Your task to perform on an android device: turn on showing notifications on the lock screen Image 0: 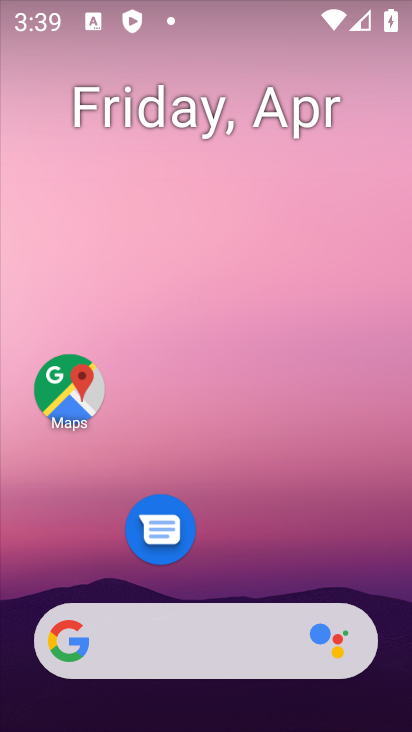
Step 0: drag from (322, 271) to (335, 206)
Your task to perform on an android device: turn on showing notifications on the lock screen Image 1: 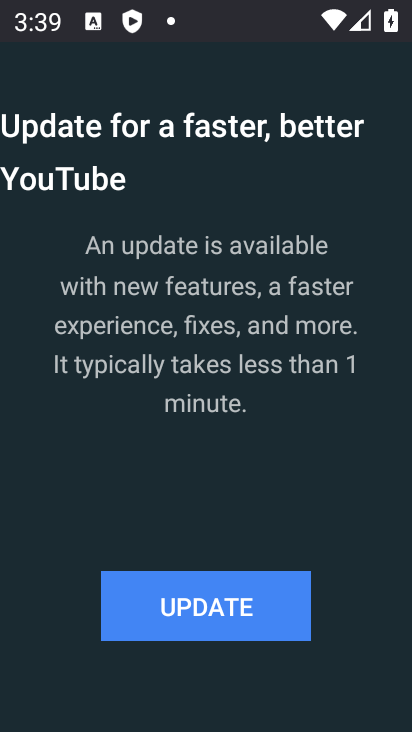
Step 1: press home button
Your task to perform on an android device: turn on showing notifications on the lock screen Image 2: 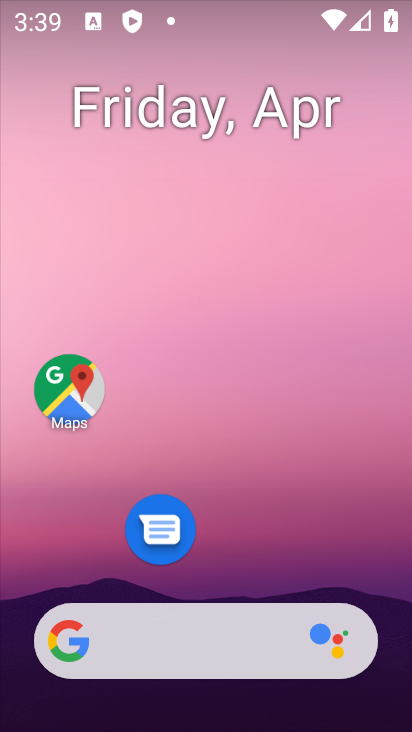
Step 2: drag from (325, 578) to (340, 82)
Your task to perform on an android device: turn on showing notifications on the lock screen Image 3: 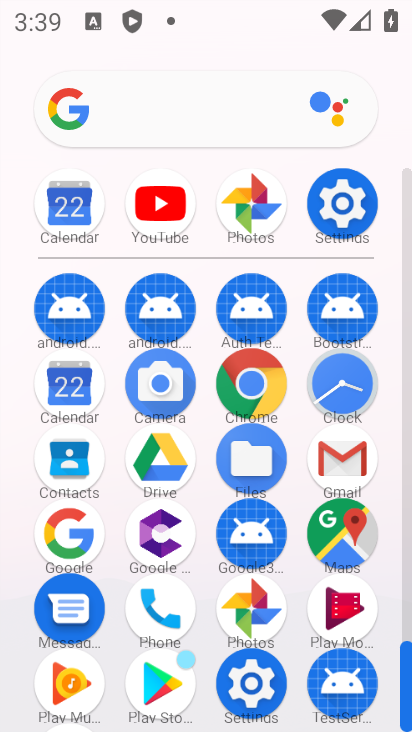
Step 3: click (355, 189)
Your task to perform on an android device: turn on showing notifications on the lock screen Image 4: 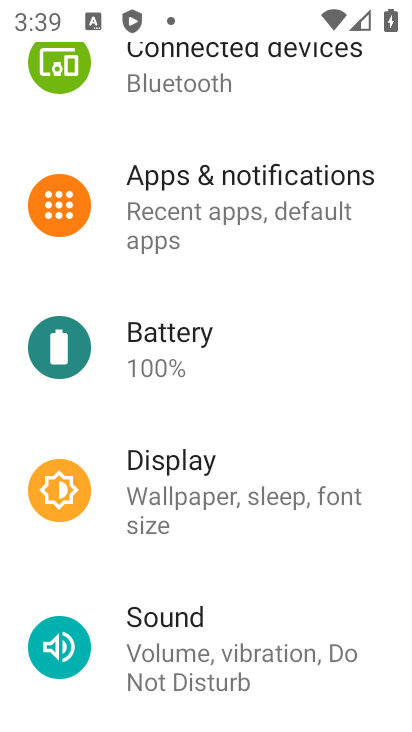
Step 4: click (355, 189)
Your task to perform on an android device: turn on showing notifications on the lock screen Image 5: 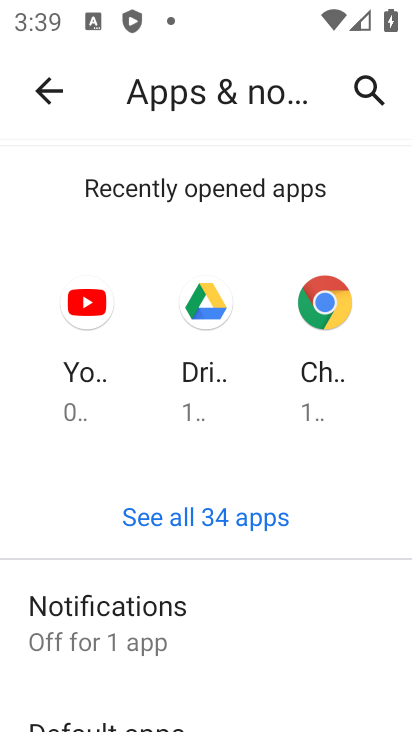
Step 5: click (166, 596)
Your task to perform on an android device: turn on showing notifications on the lock screen Image 6: 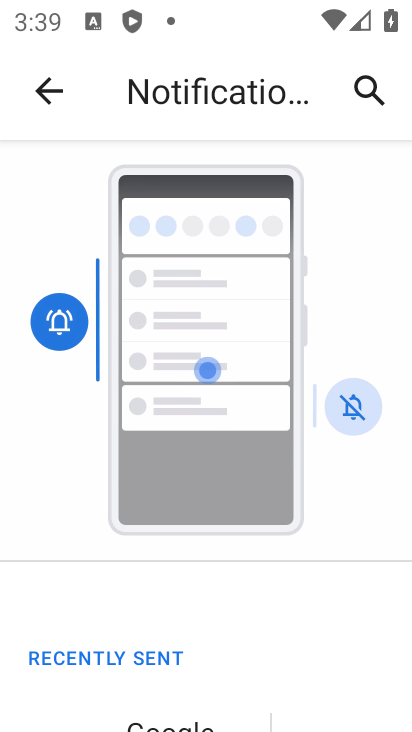
Step 6: drag from (175, 540) to (170, 124)
Your task to perform on an android device: turn on showing notifications on the lock screen Image 7: 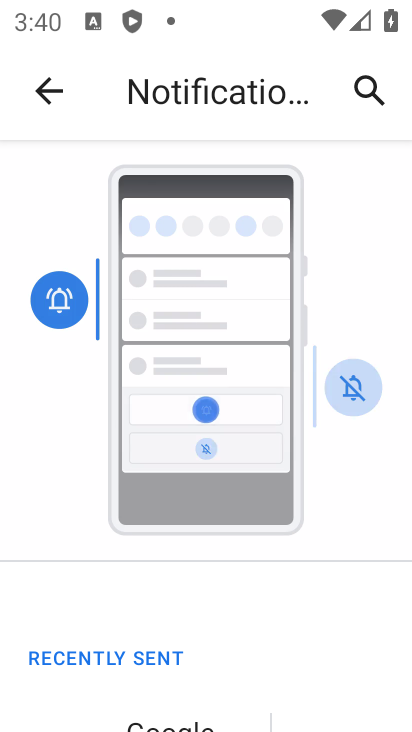
Step 7: drag from (169, 549) to (206, 261)
Your task to perform on an android device: turn on showing notifications on the lock screen Image 8: 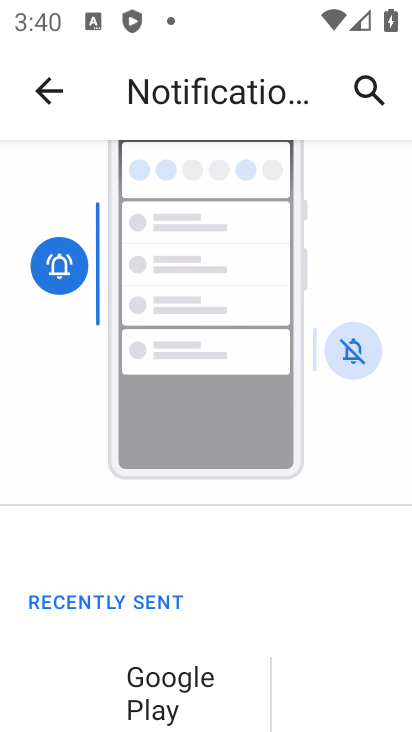
Step 8: drag from (194, 498) to (252, 193)
Your task to perform on an android device: turn on showing notifications on the lock screen Image 9: 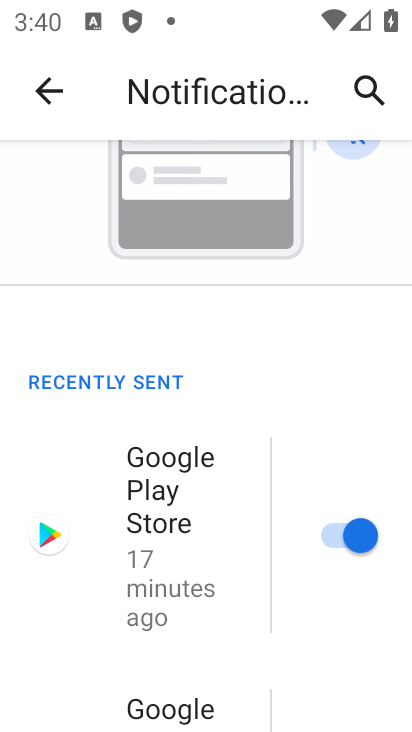
Step 9: drag from (217, 625) to (266, 84)
Your task to perform on an android device: turn on showing notifications on the lock screen Image 10: 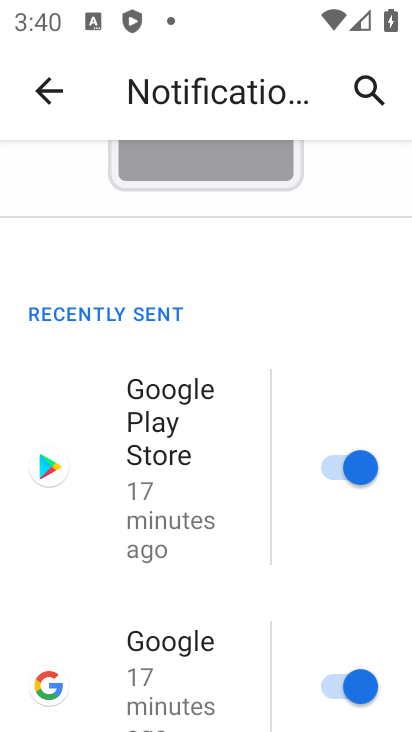
Step 10: drag from (102, 534) to (183, 80)
Your task to perform on an android device: turn on showing notifications on the lock screen Image 11: 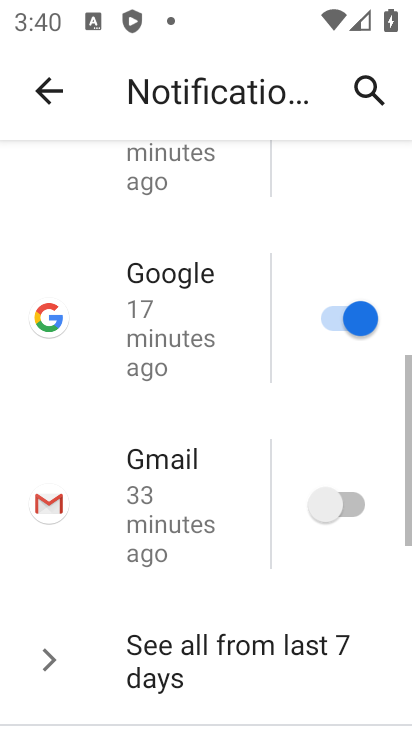
Step 11: drag from (173, 444) to (199, 71)
Your task to perform on an android device: turn on showing notifications on the lock screen Image 12: 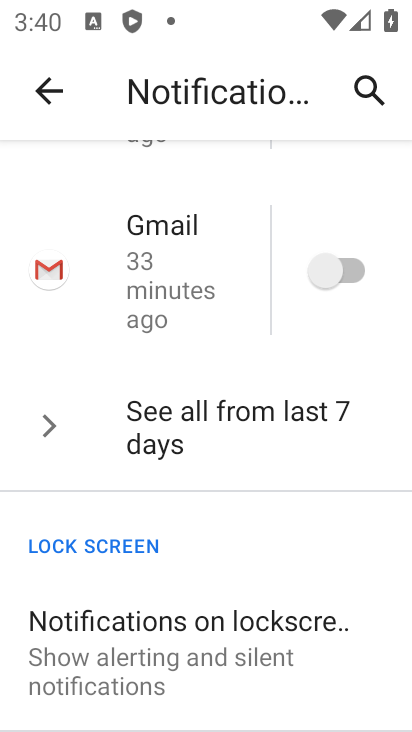
Step 12: drag from (160, 610) to (182, 214)
Your task to perform on an android device: turn on showing notifications on the lock screen Image 13: 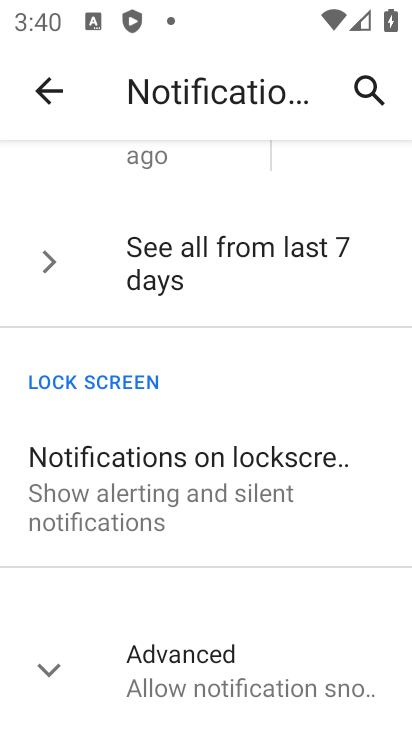
Step 13: click (215, 520)
Your task to perform on an android device: turn on showing notifications on the lock screen Image 14: 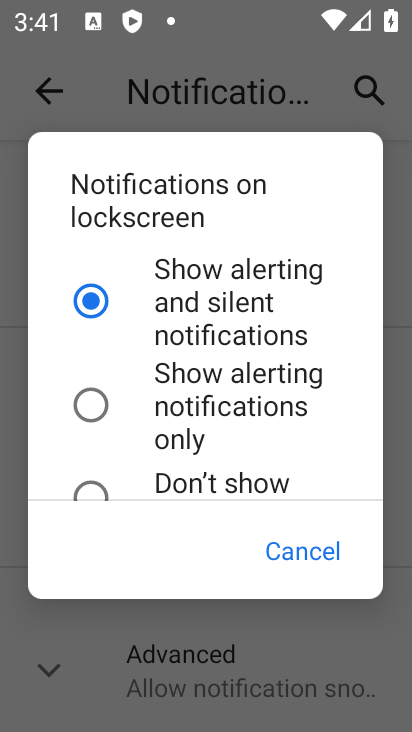
Step 14: task complete